Your task to perform on an android device: change the upload size in google photos Image 0: 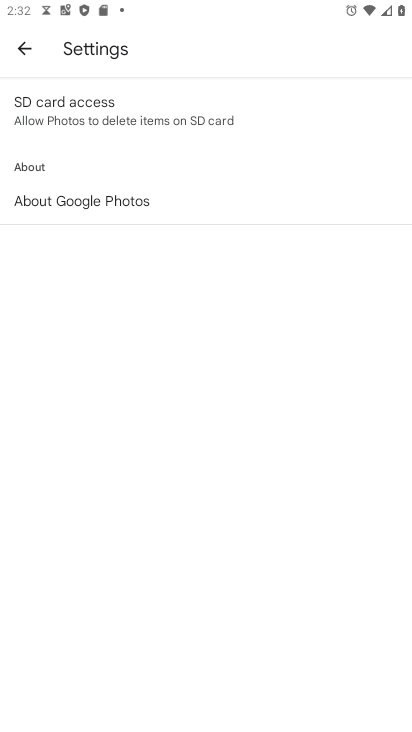
Step 0: click (21, 45)
Your task to perform on an android device: change the upload size in google photos Image 1: 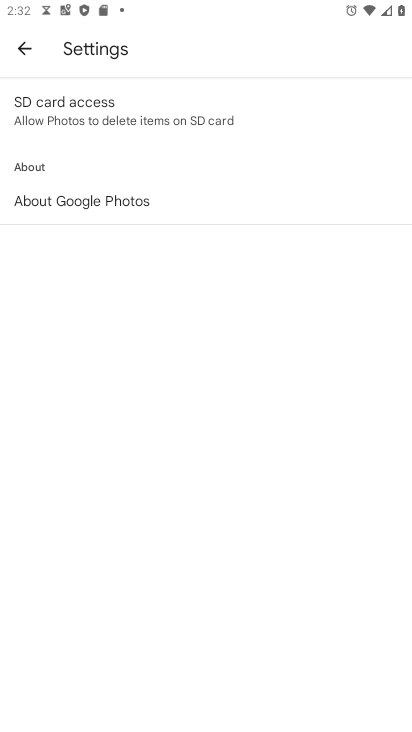
Step 1: click (27, 43)
Your task to perform on an android device: change the upload size in google photos Image 2: 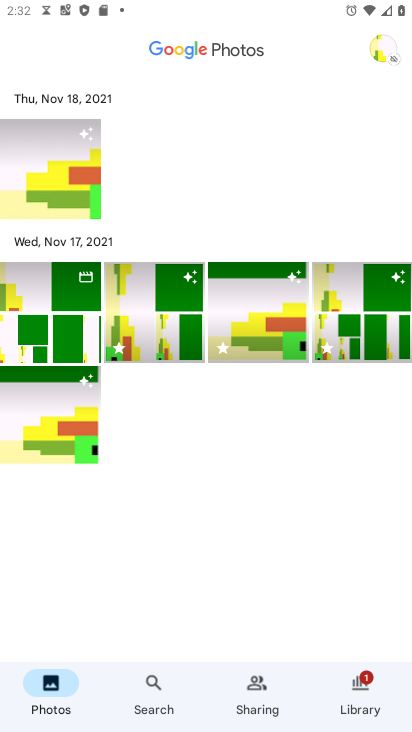
Step 2: task complete